Your task to perform on an android device: toggle improve location accuracy Image 0: 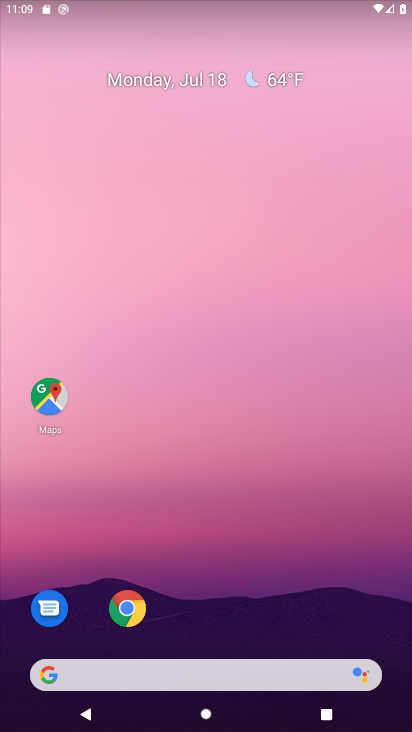
Step 0: drag from (205, 587) to (198, 0)
Your task to perform on an android device: toggle improve location accuracy Image 1: 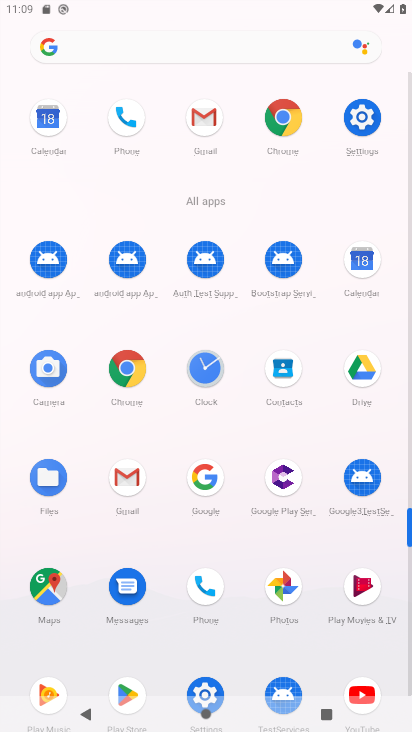
Step 1: click (350, 132)
Your task to perform on an android device: toggle improve location accuracy Image 2: 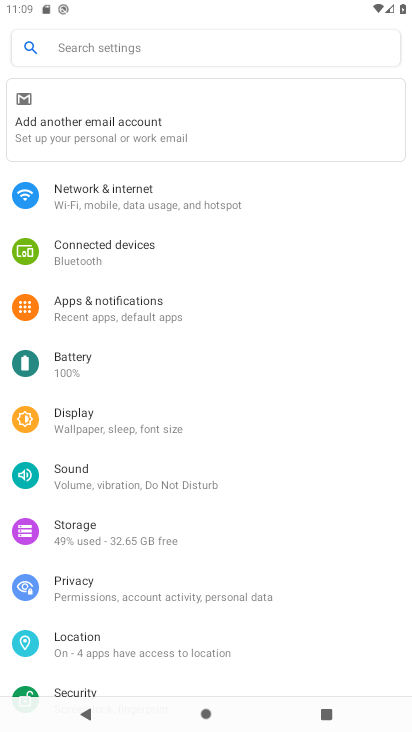
Step 2: click (125, 651)
Your task to perform on an android device: toggle improve location accuracy Image 3: 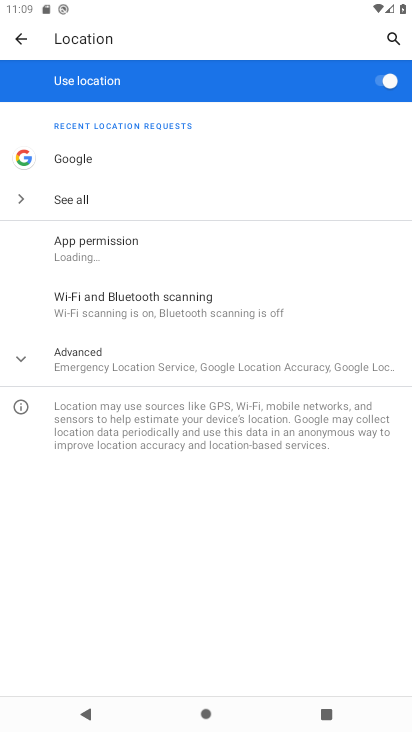
Step 3: click (123, 358)
Your task to perform on an android device: toggle improve location accuracy Image 4: 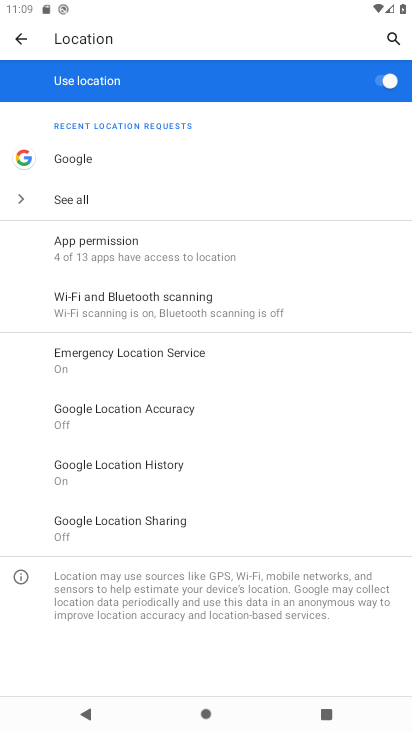
Step 4: click (181, 416)
Your task to perform on an android device: toggle improve location accuracy Image 5: 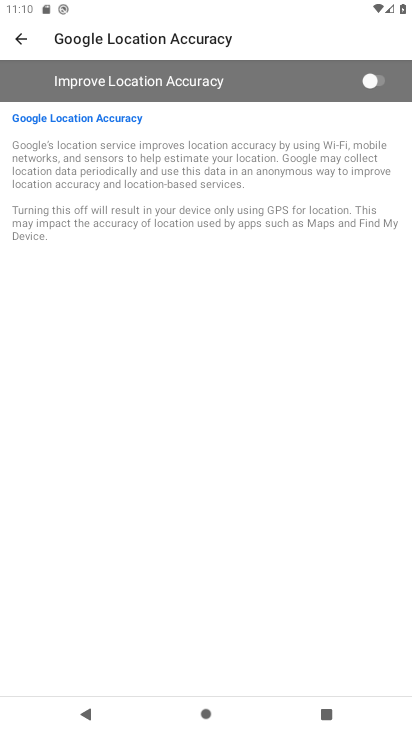
Step 5: click (357, 89)
Your task to perform on an android device: toggle improve location accuracy Image 6: 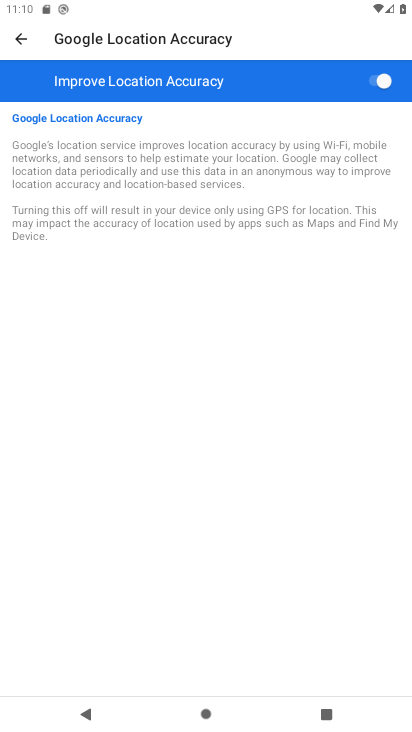
Step 6: task complete